Your task to perform on an android device: move an email to a new category in the gmail app Image 0: 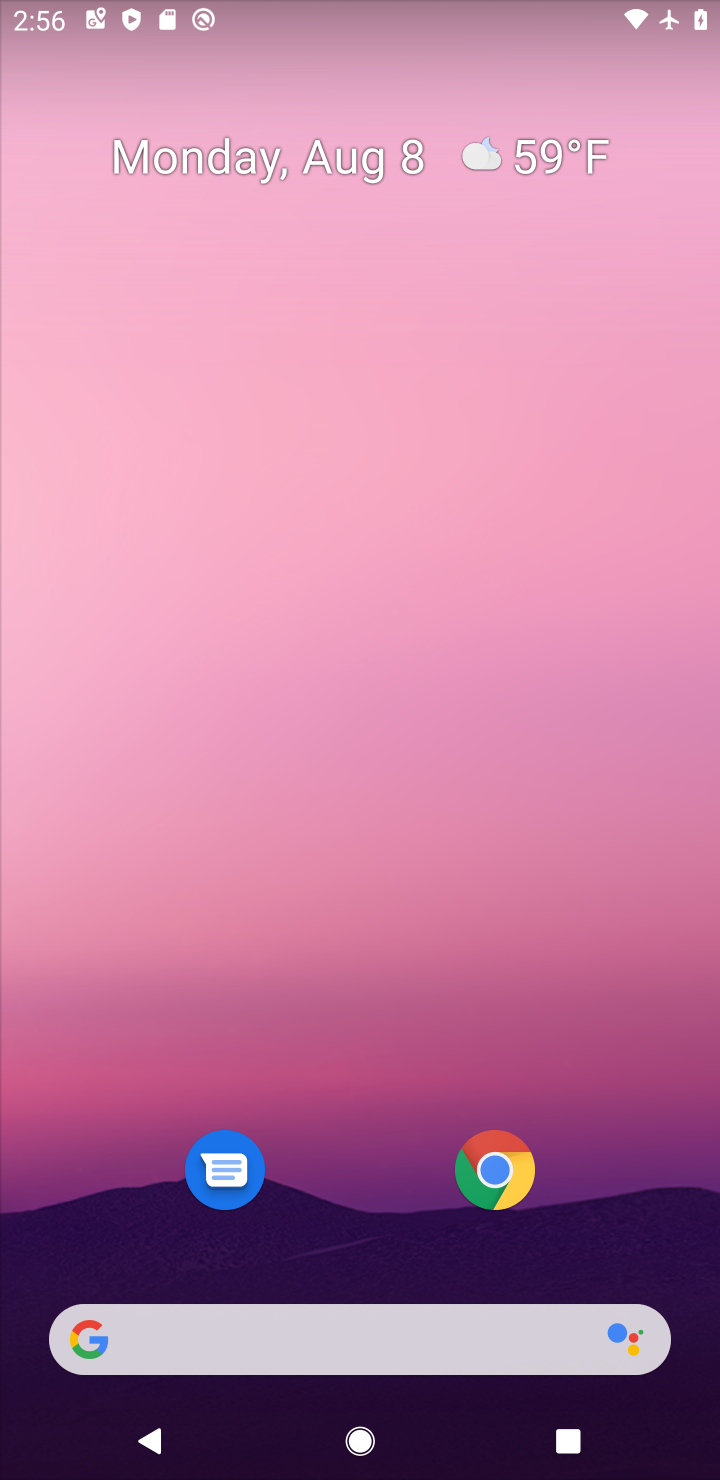
Step 0: drag from (342, 1096) to (345, 418)
Your task to perform on an android device: move an email to a new category in the gmail app Image 1: 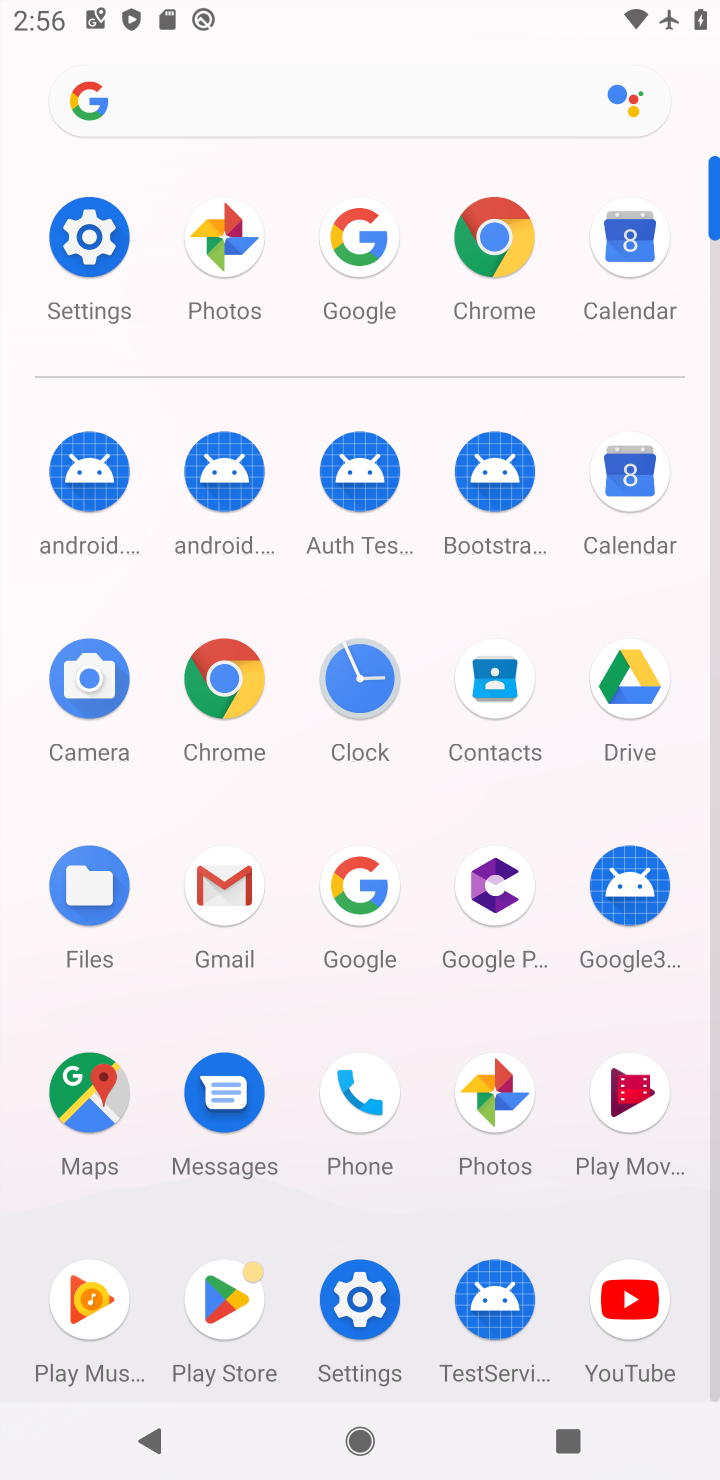
Step 1: click (232, 896)
Your task to perform on an android device: move an email to a new category in the gmail app Image 2: 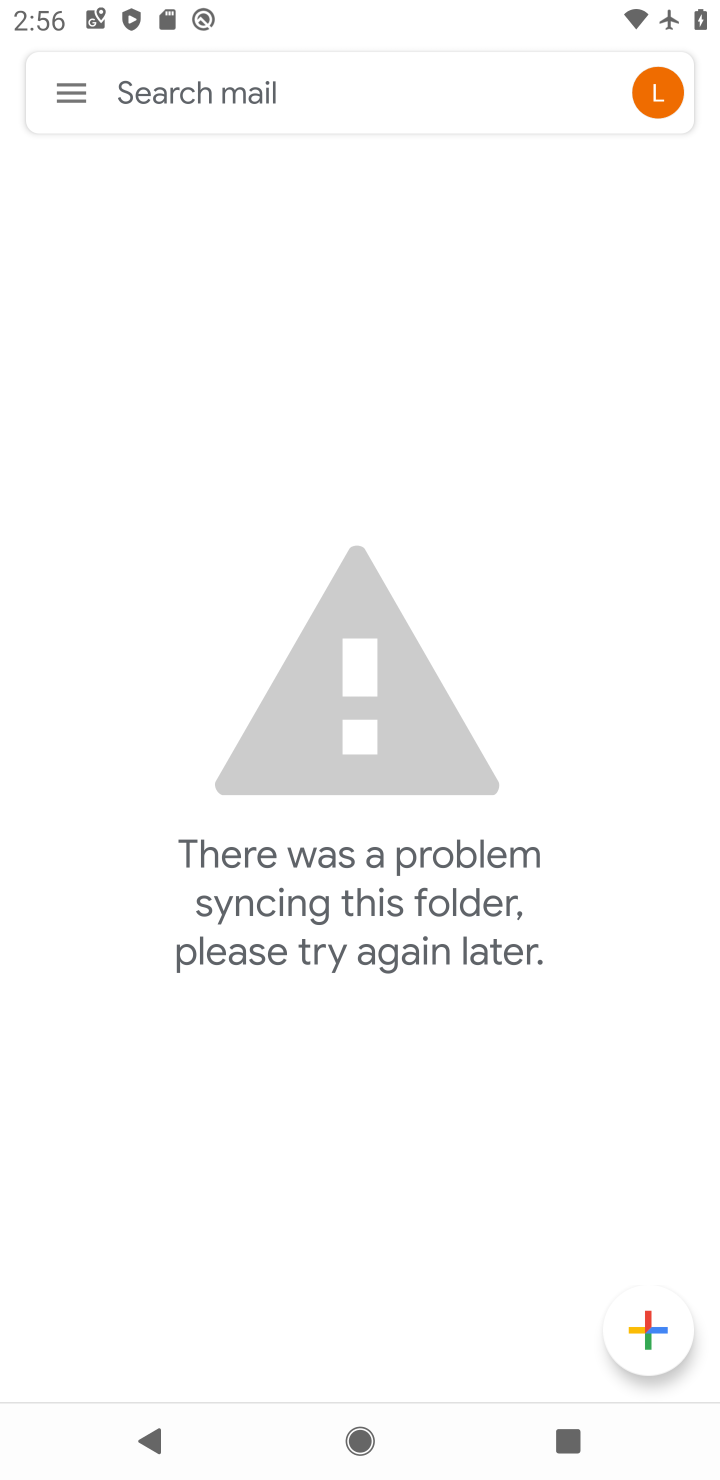
Step 2: click (78, 99)
Your task to perform on an android device: move an email to a new category in the gmail app Image 3: 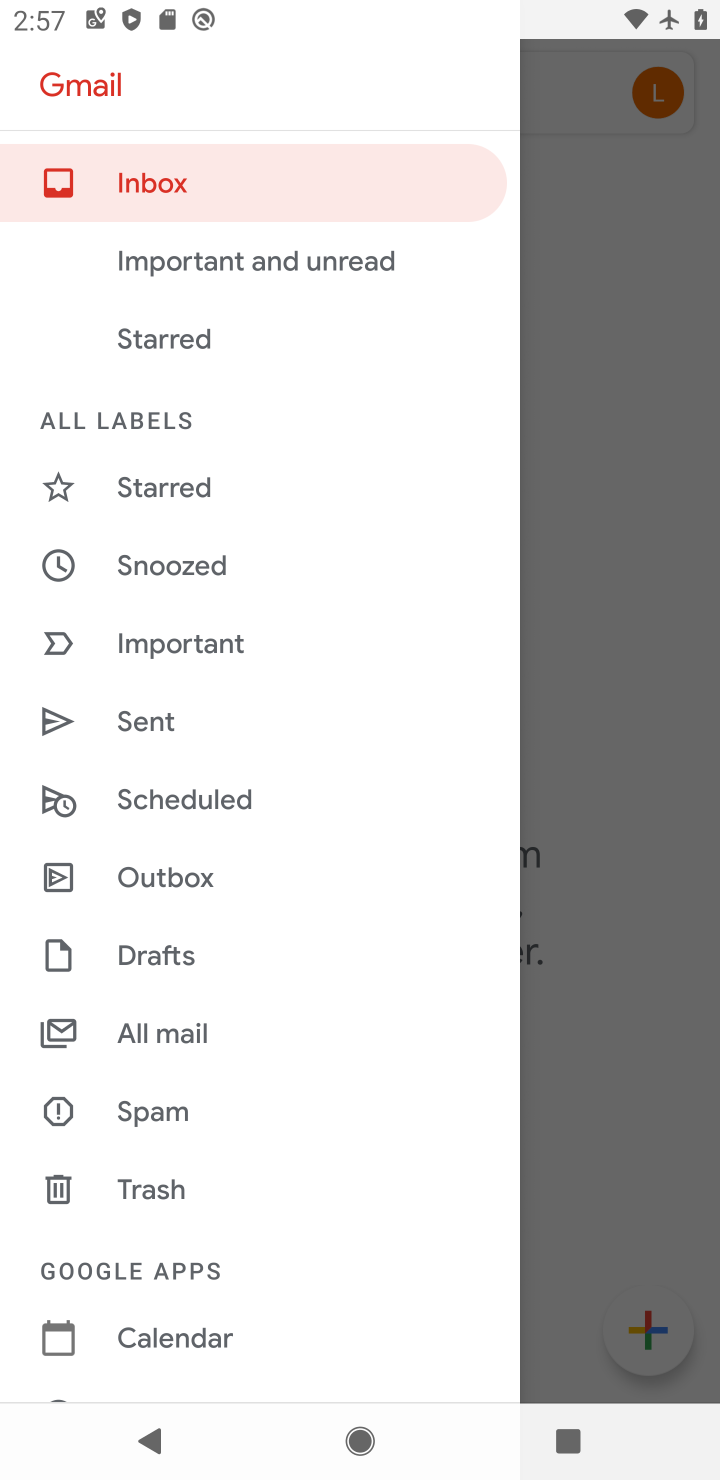
Step 3: click (138, 1036)
Your task to perform on an android device: move an email to a new category in the gmail app Image 4: 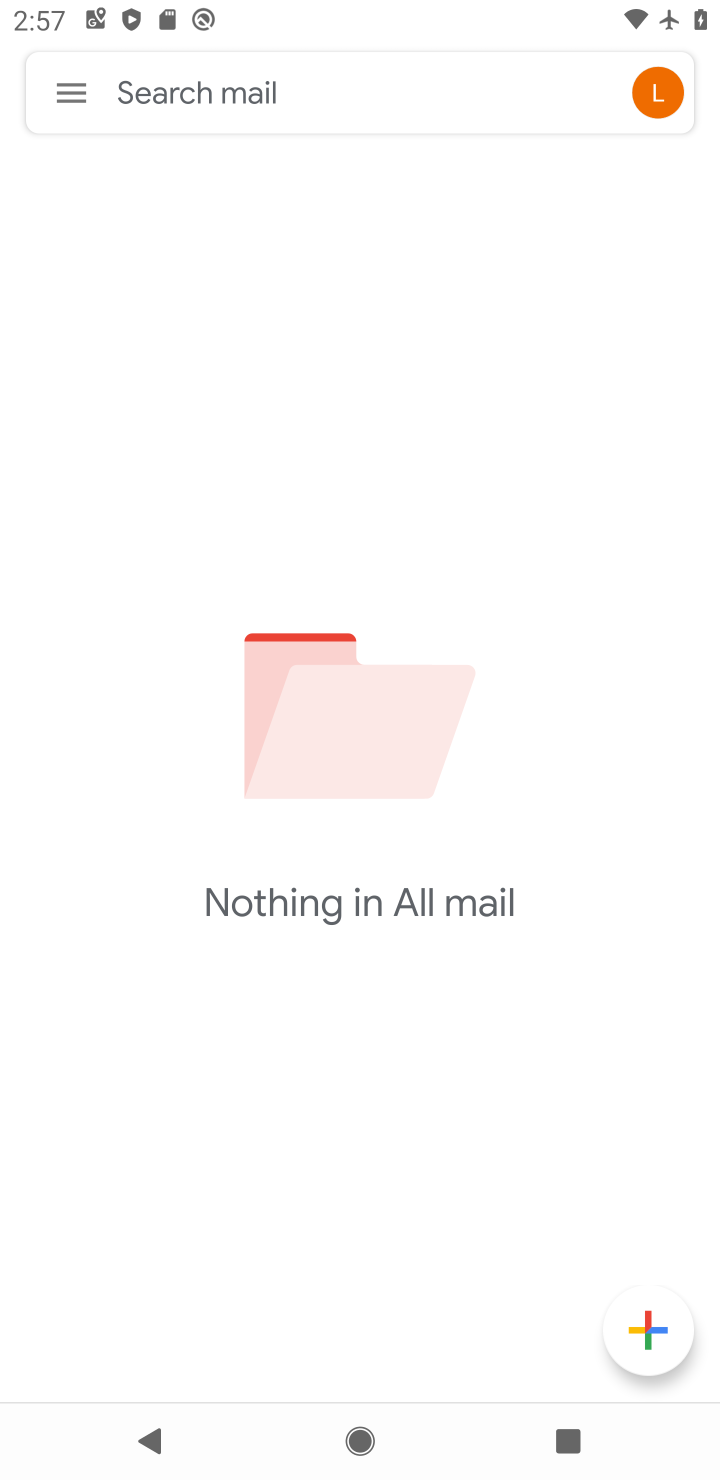
Step 4: task complete